Your task to perform on an android device: check out phone information Image 0: 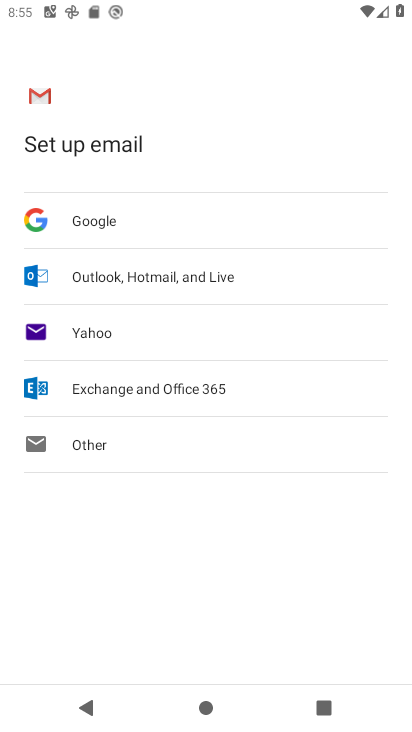
Step 0: press home button
Your task to perform on an android device: check out phone information Image 1: 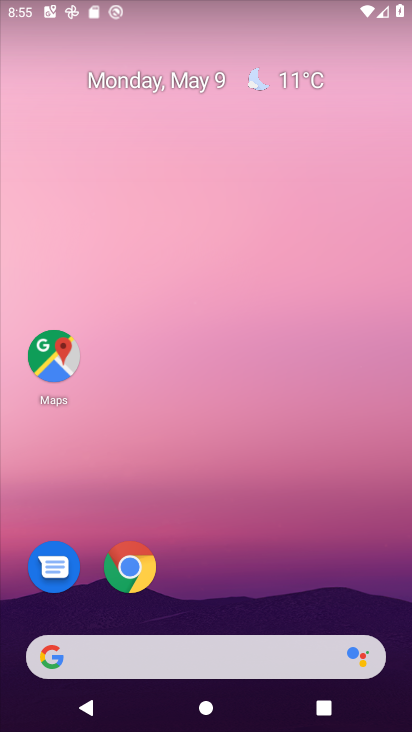
Step 1: drag from (246, 525) to (181, 27)
Your task to perform on an android device: check out phone information Image 2: 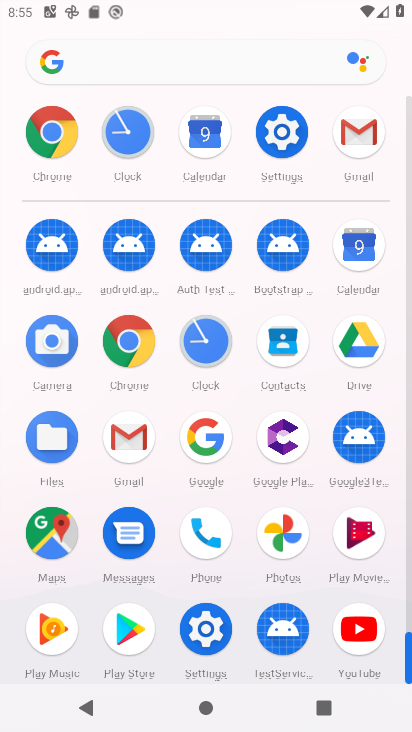
Step 2: click (203, 523)
Your task to perform on an android device: check out phone information Image 3: 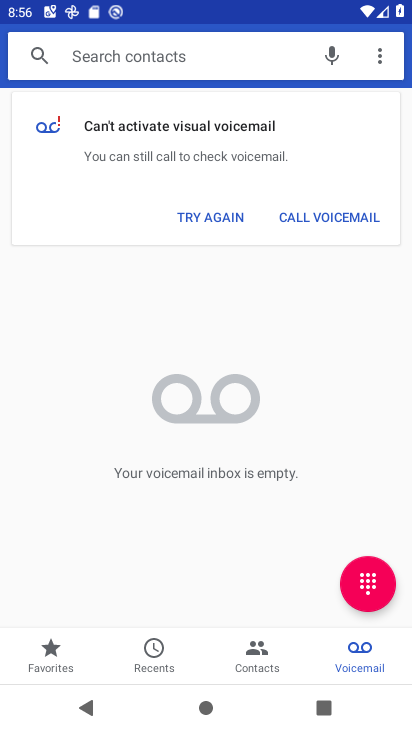
Step 3: click (379, 58)
Your task to perform on an android device: check out phone information Image 4: 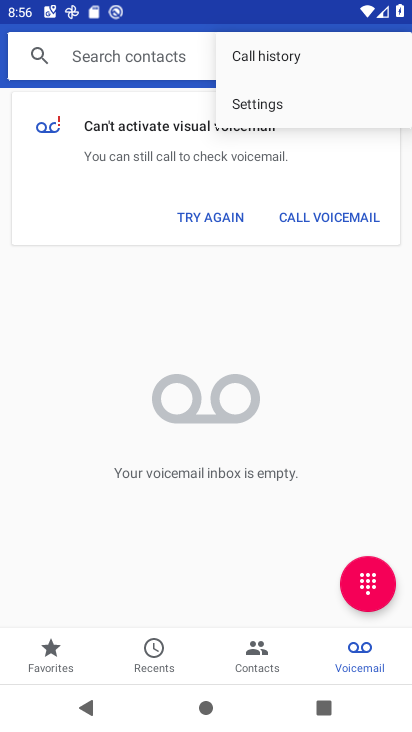
Step 4: click (331, 101)
Your task to perform on an android device: check out phone information Image 5: 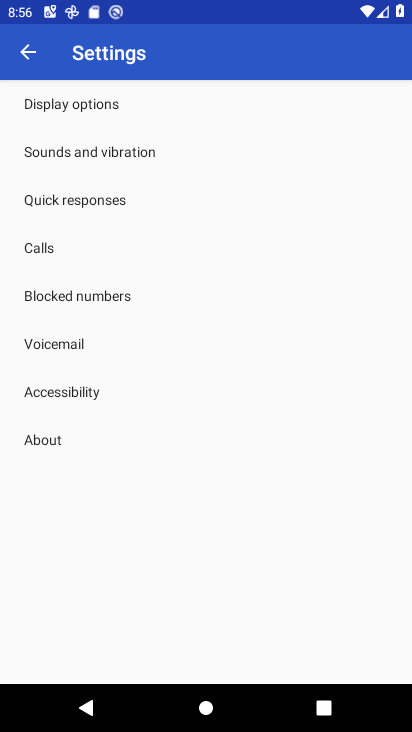
Step 5: click (43, 427)
Your task to perform on an android device: check out phone information Image 6: 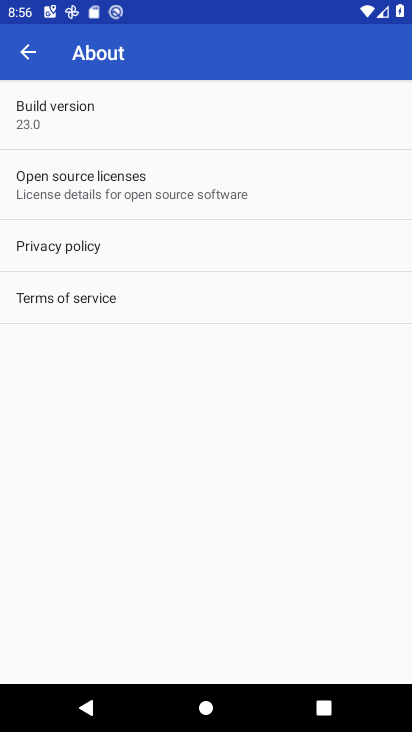
Step 6: task complete